Your task to perform on an android device: empty trash in the gmail app Image 0: 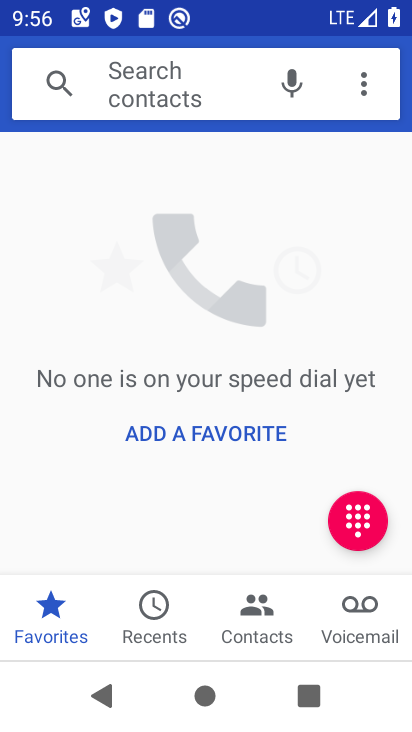
Step 0: press home button
Your task to perform on an android device: empty trash in the gmail app Image 1: 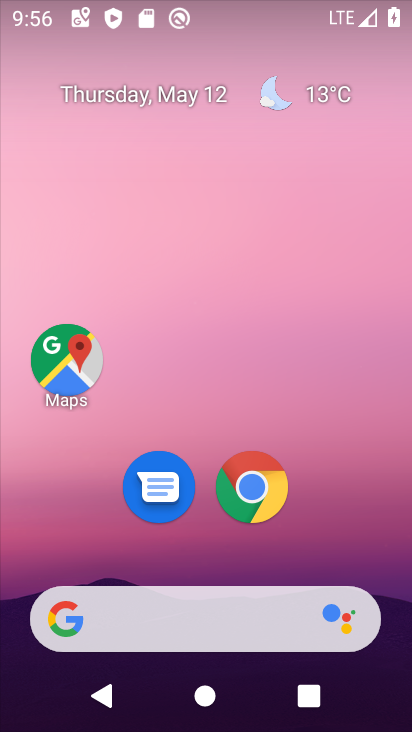
Step 1: drag from (390, 557) to (338, 0)
Your task to perform on an android device: empty trash in the gmail app Image 2: 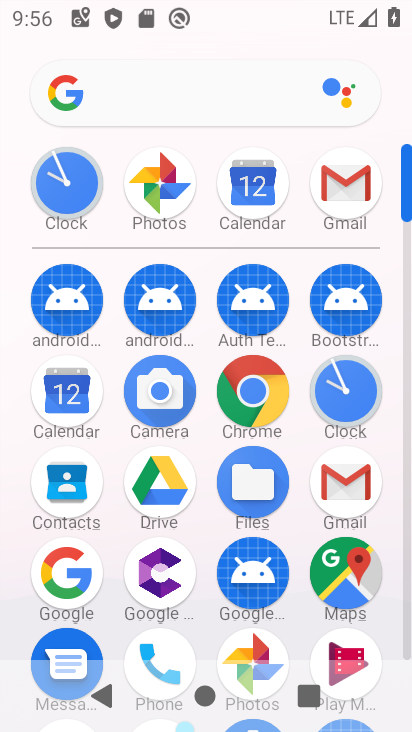
Step 2: click (354, 191)
Your task to perform on an android device: empty trash in the gmail app Image 3: 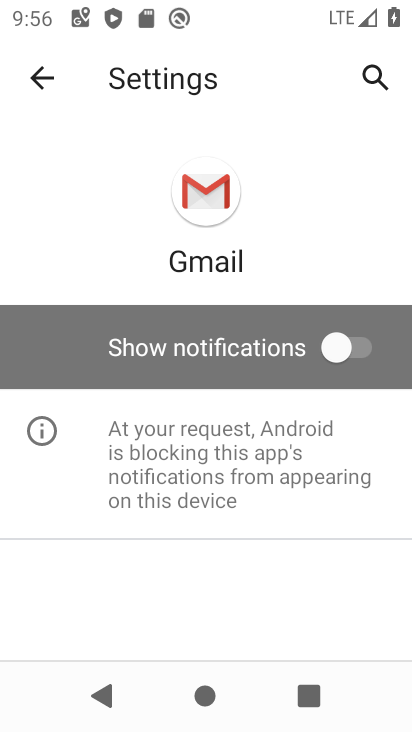
Step 3: click (46, 80)
Your task to perform on an android device: empty trash in the gmail app Image 4: 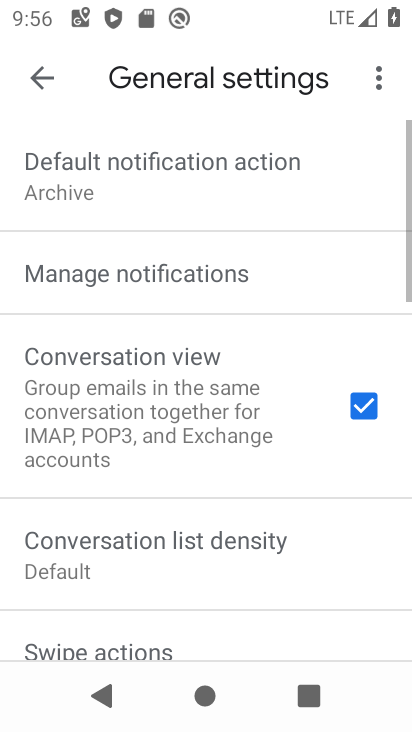
Step 4: click (46, 80)
Your task to perform on an android device: empty trash in the gmail app Image 5: 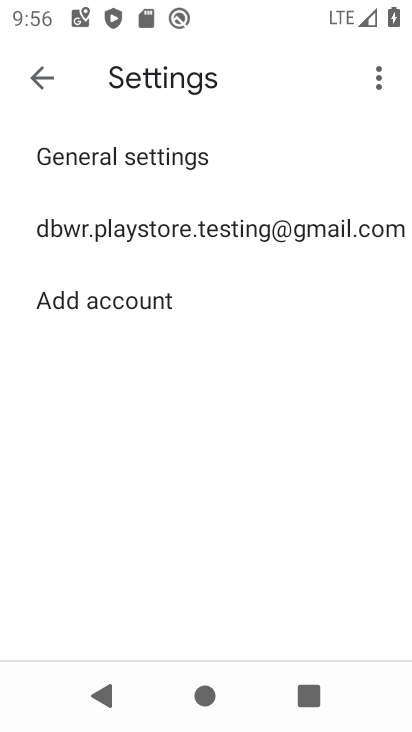
Step 5: click (46, 80)
Your task to perform on an android device: empty trash in the gmail app Image 6: 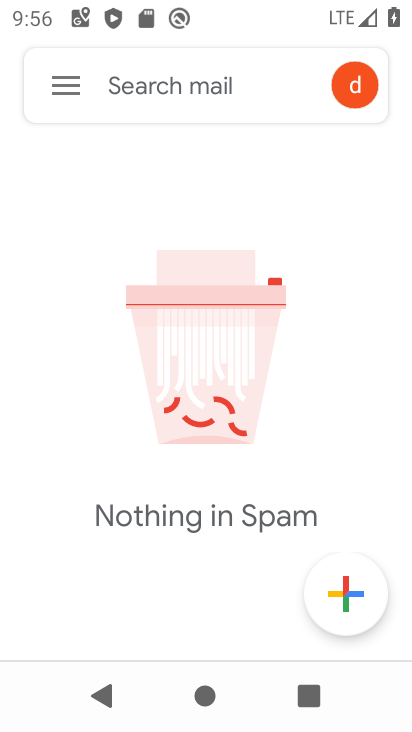
Step 6: click (46, 80)
Your task to perform on an android device: empty trash in the gmail app Image 7: 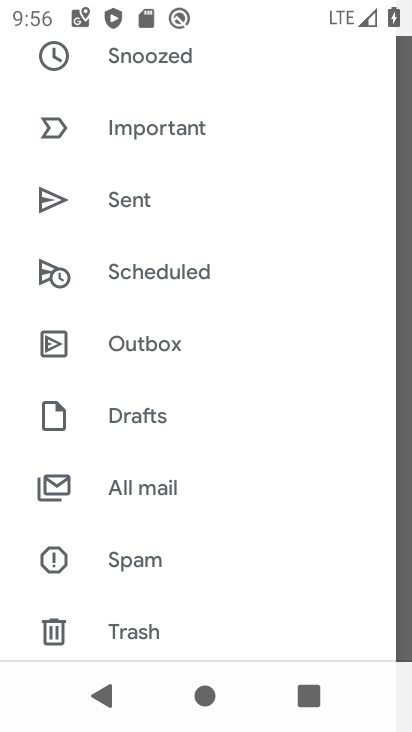
Step 7: click (141, 640)
Your task to perform on an android device: empty trash in the gmail app Image 8: 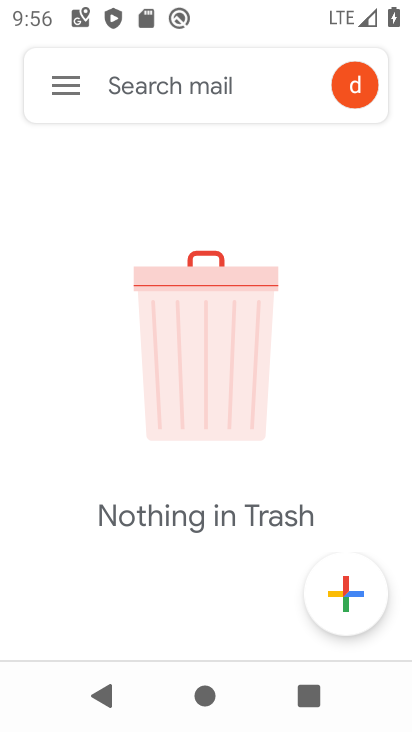
Step 8: task complete